Your task to perform on an android device: turn off data saver in the chrome app Image 0: 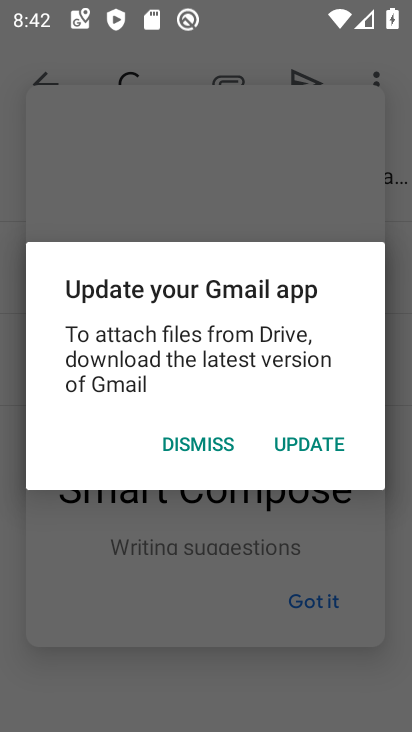
Step 0: press home button
Your task to perform on an android device: turn off data saver in the chrome app Image 1: 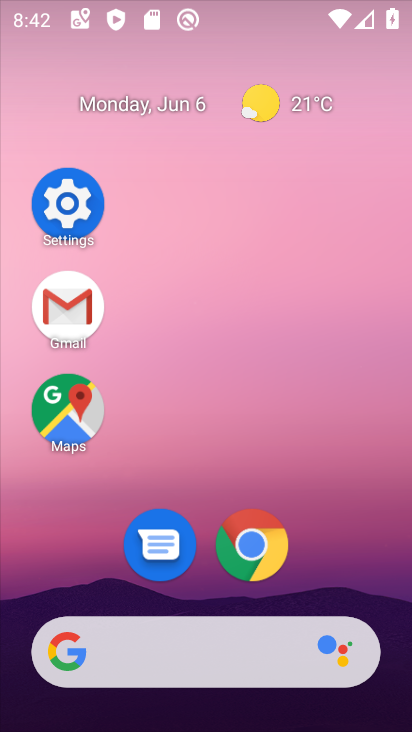
Step 1: click (249, 558)
Your task to perform on an android device: turn off data saver in the chrome app Image 2: 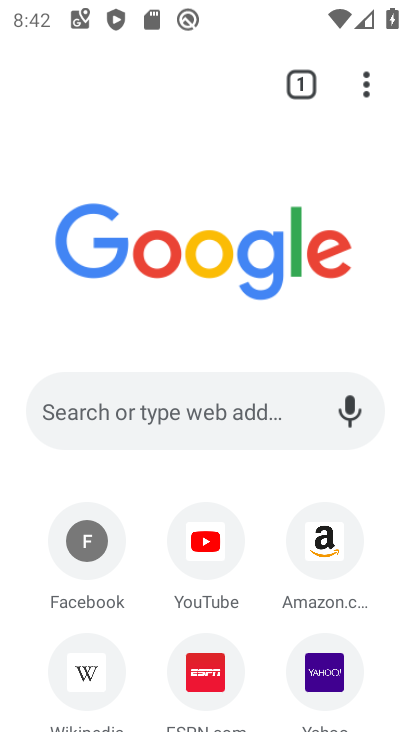
Step 2: click (363, 88)
Your task to perform on an android device: turn off data saver in the chrome app Image 3: 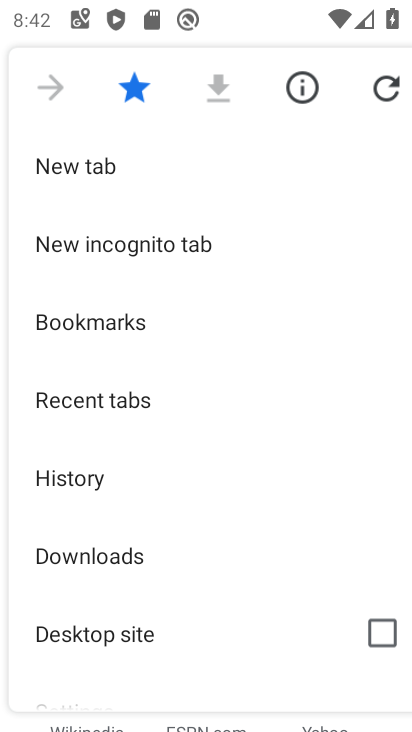
Step 3: drag from (240, 520) to (223, 137)
Your task to perform on an android device: turn off data saver in the chrome app Image 4: 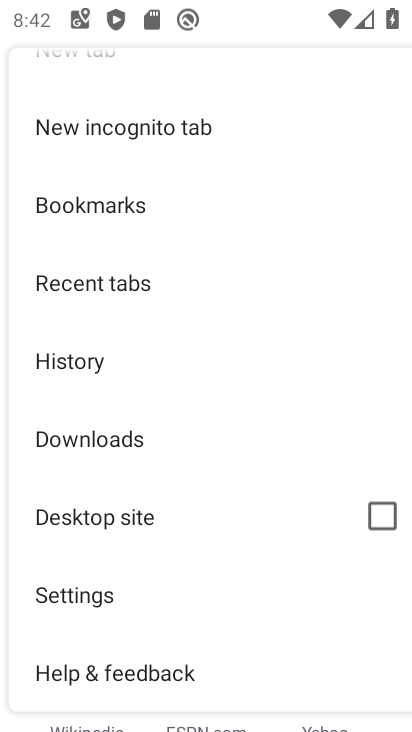
Step 4: click (198, 590)
Your task to perform on an android device: turn off data saver in the chrome app Image 5: 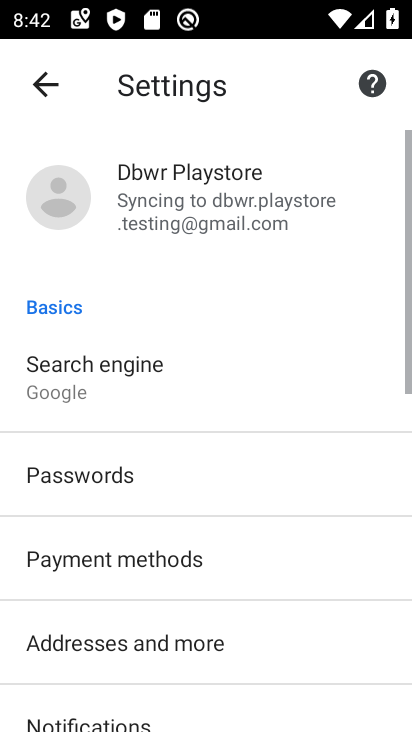
Step 5: drag from (329, 524) to (361, 93)
Your task to perform on an android device: turn off data saver in the chrome app Image 6: 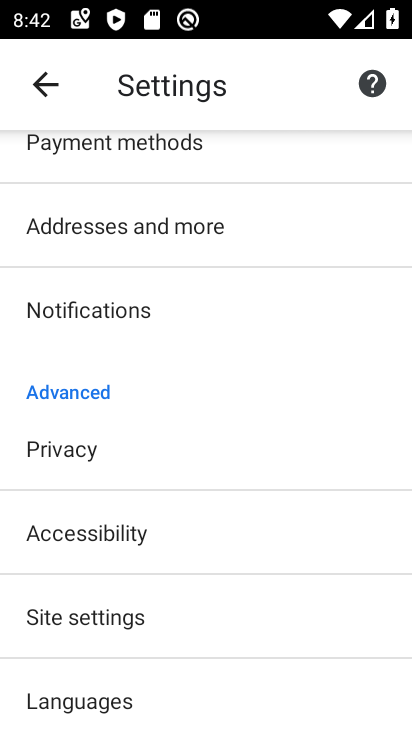
Step 6: drag from (228, 603) to (248, 213)
Your task to perform on an android device: turn off data saver in the chrome app Image 7: 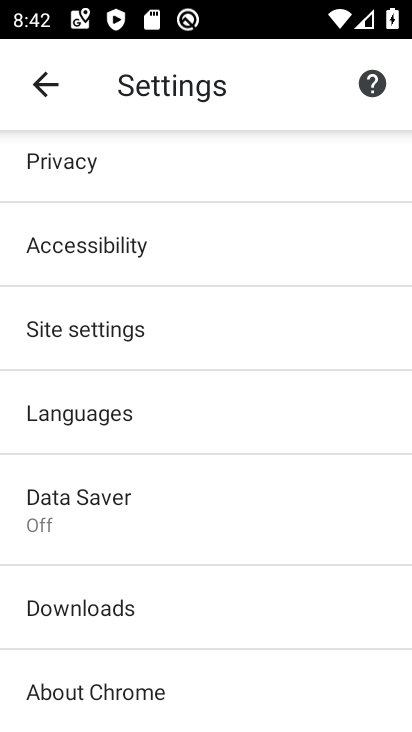
Step 7: click (235, 510)
Your task to perform on an android device: turn off data saver in the chrome app Image 8: 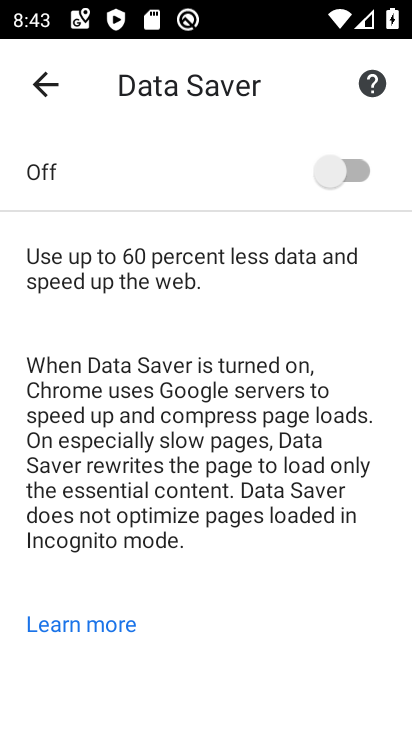
Step 8: task complete